Your task to perform on an android device: turn pop-ups off in chrome Image 0: 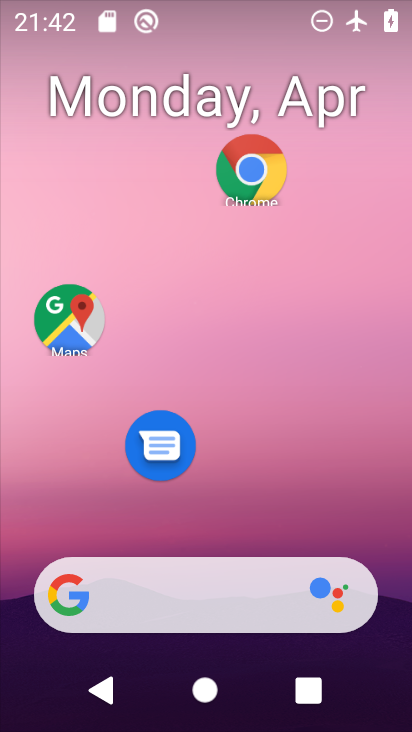
Step 0: click (277, 174)
Your task to perform on an android device: turn pop-ups off in chrome Image 1: 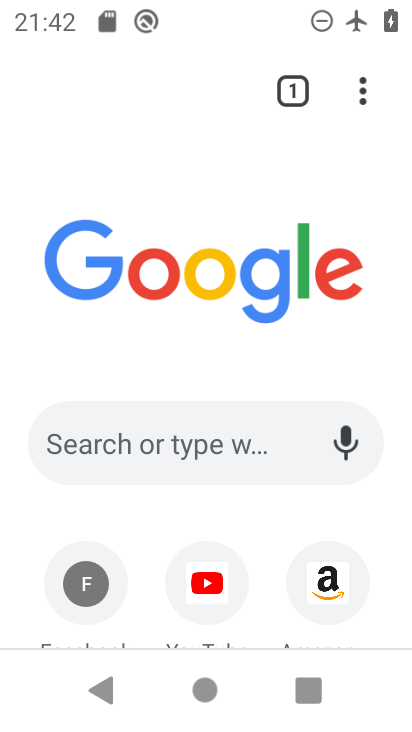
Step 1: click (360, 101)
Your task to perform on an android device: turn pop-ups off in chrome Image 2: 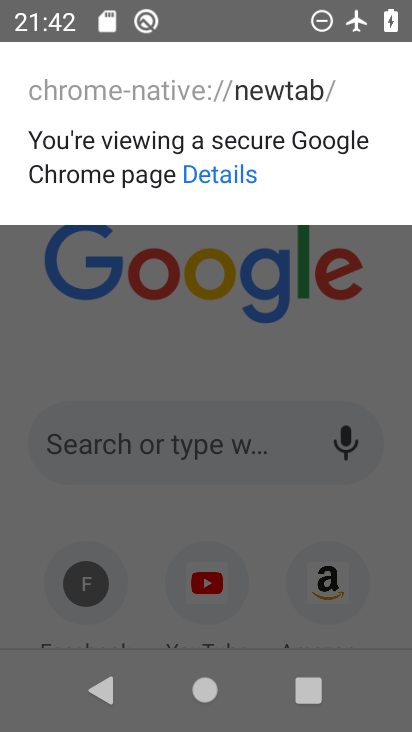
Step 2: click (286, 282)
Your task to perform on an android device: turn pop-ups off in chrome Image 3: 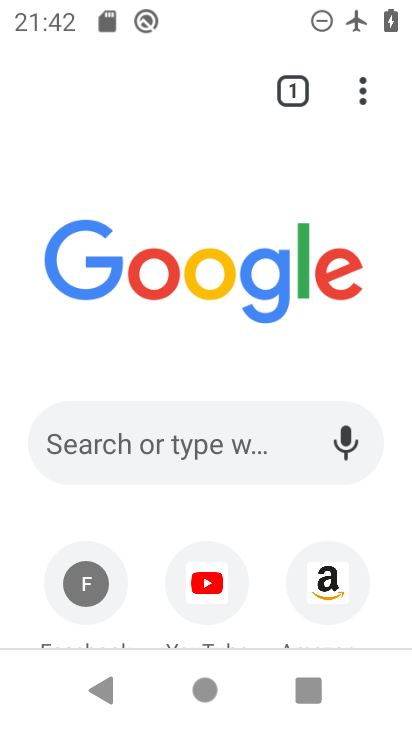
Step 3: click (356, 92)
Your task to perform on an android device: turn pop-ups off in chrome Image 4: 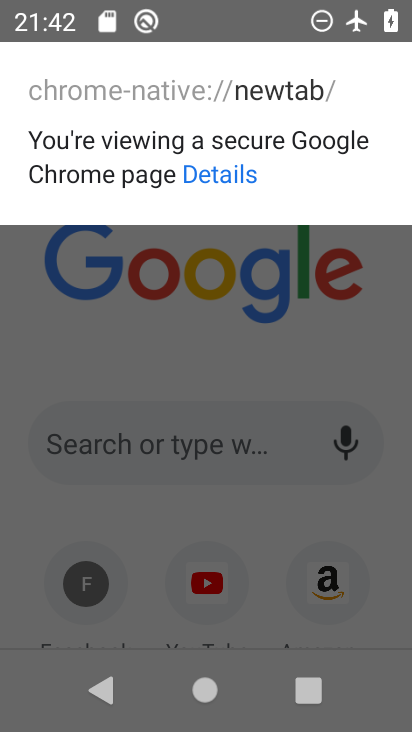
Step 4: click (277, 315)
Your task to perform on an android device: turn pop-ups off in chrome Image 5: 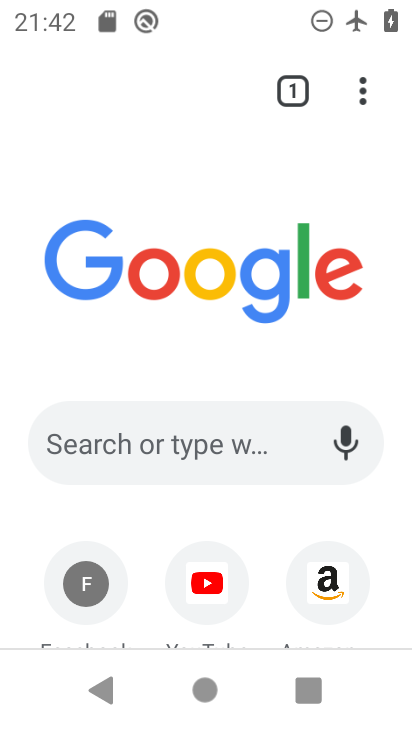
Step 5: click (359, 97)
Your task to perform on an android device: turn pop-ups off in chrome Image 6: 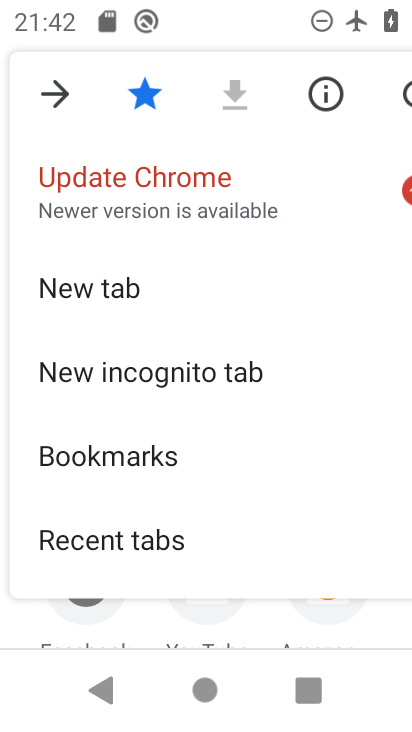
Step 6: drag from (232, 545) to (253, 185)
Your task to perform on an android device: turn pop-ups off in chrome Image 7: 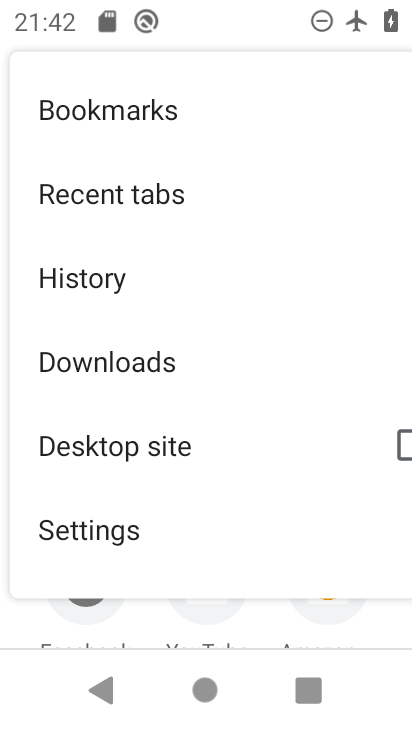
Step 7: drag from (192, 446) to (221, 157)
Your task to perform on an android device: turn pop-ups off in chrome Image 8: 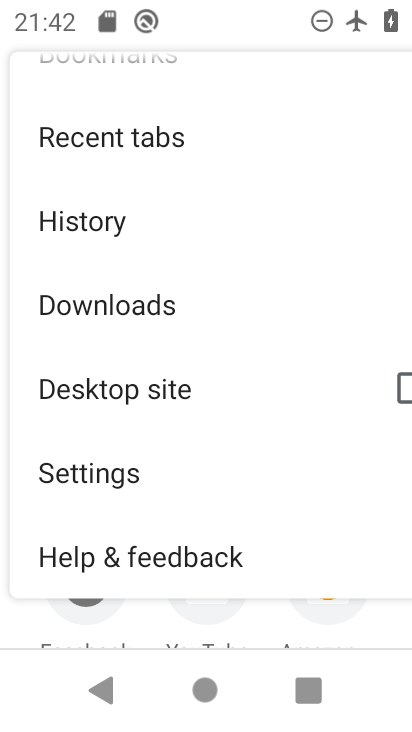
Step 8: click (150, 460)
Your task to perform on an android device: turn pop-ups off in chrome Image 9: 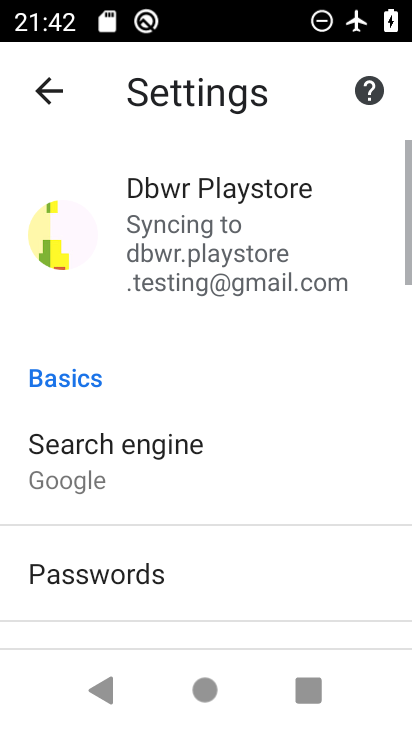
Step 9: drag from (239, 530) to (239, 196)
Your task to perform on an android device: turn pop-ups off in chrome Image 10: 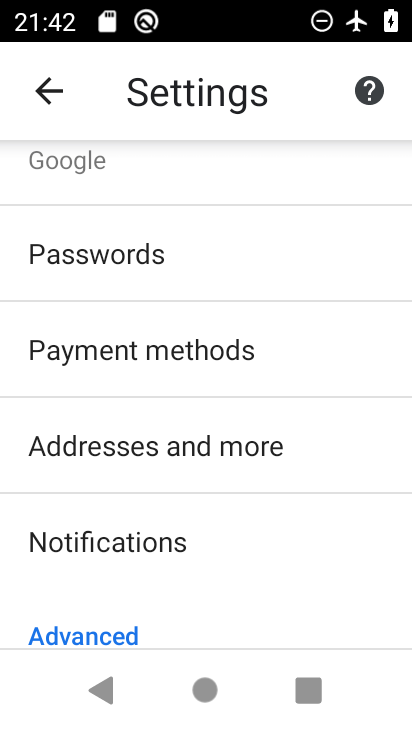
Step 10: drag from (201, 479) to (239, 199)
Your task to perform on an android device: turn pop-ups off in chrome Image 11: 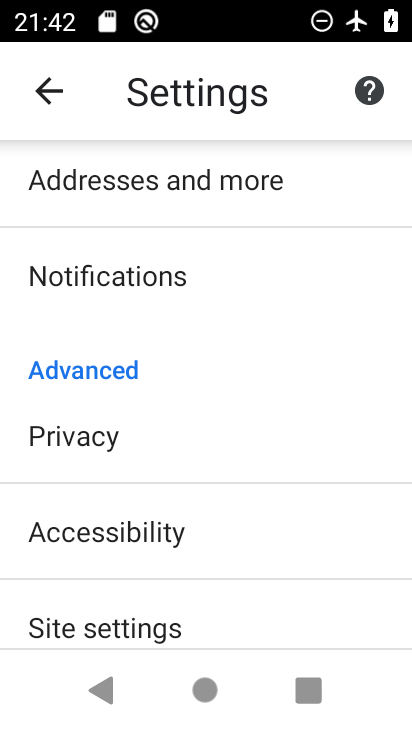
Step 11: drag from (249, 549) to (258, 292)
Your task to perform on an android device: turn pop-ups off in chrome Image 12: 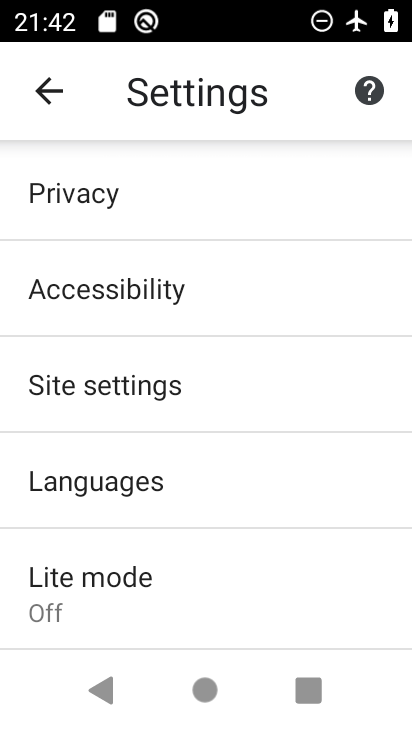
Step 12: drag from (181, 589) to (210, 349)
Your task to perform on an android device: turn pop-ups off in chrome Image 13: 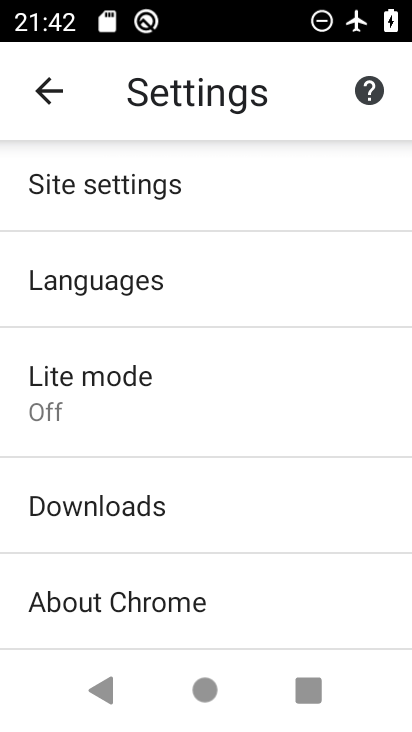
Step 13: click (176, 189)
Your task to perform on an android device: turn pop-ups off in chrome Image 14: 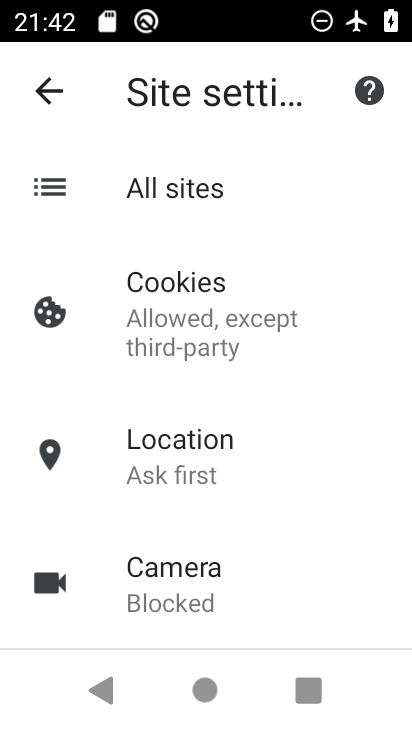
Step 14: drag from (215, 493) to (212, 237)
Your task to perform on an android device: turn pop-ups off in chrome Image 15: 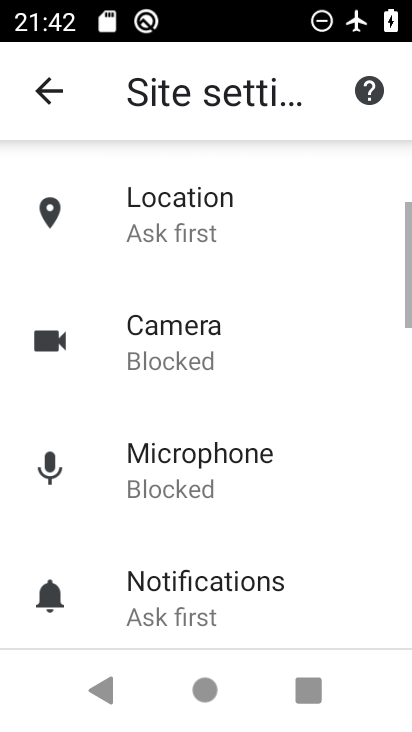
Step 15: drag from (220, 489) to (232, 216)
Your task to perform on an android device: turn pop-ups off in chrome Image 16: 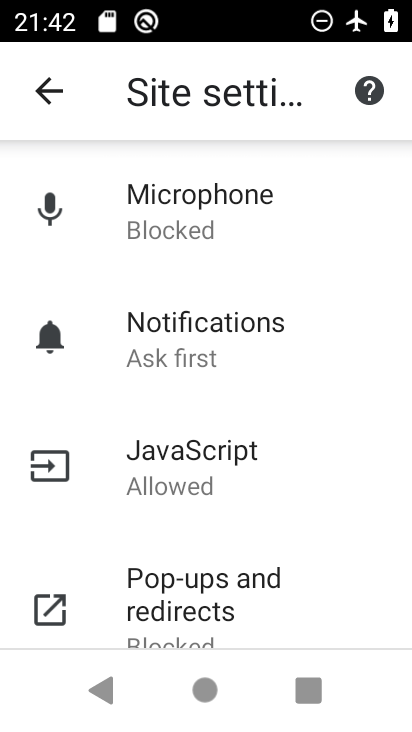
Step 16: click (230, 592)
Your task to perform on an android device: turn pop-ups off in chrome Image 17: 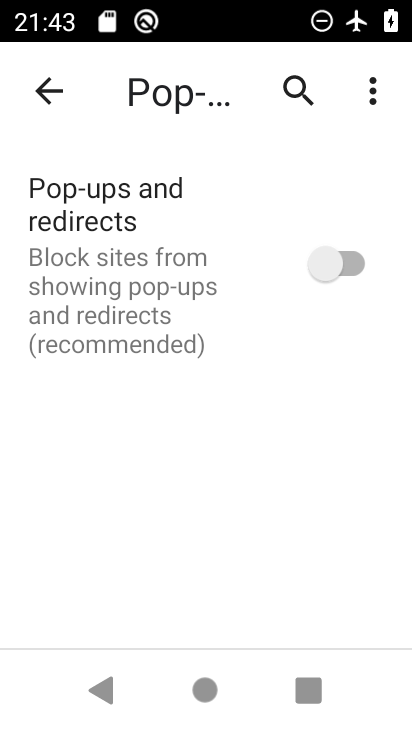
Step 17: task complete